Your task to perform on an android device: toggle improve location accuracy Image 0: 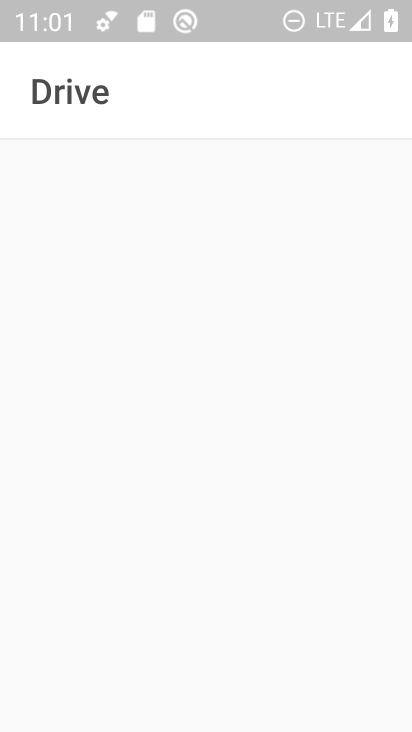
Step 0: press home button
Your task to perform on an android device: toggle improve location accuracy Image 1: 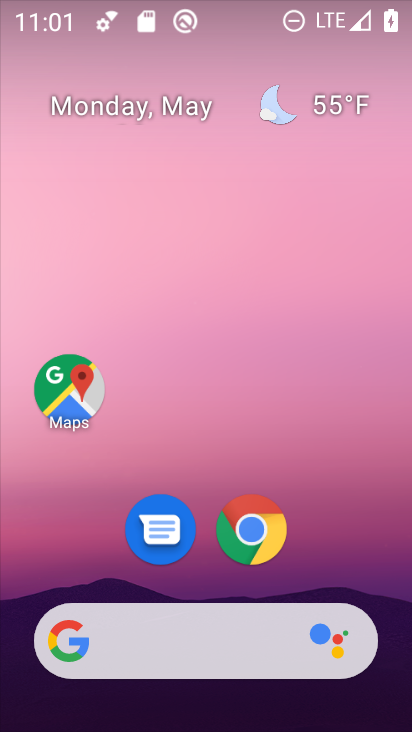
Step 1: drag from (231, 621) to (277, 30)
Your task to perform on an android device: toggle improve location accuracy Image 2: 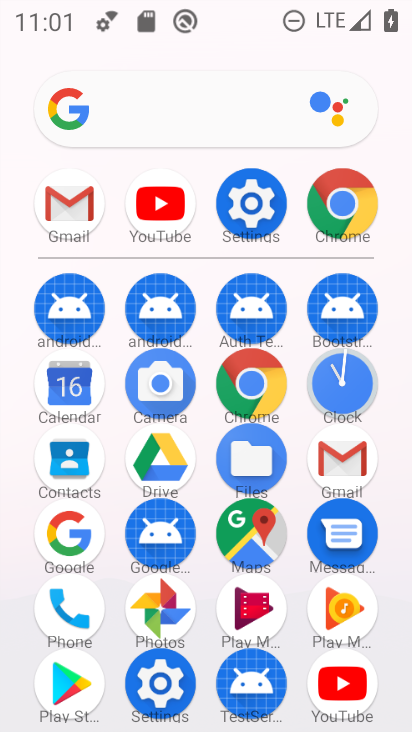
Step 2: click (256, 197)
Your task to perform on an android device: toggle improve location accuracy Image 3: 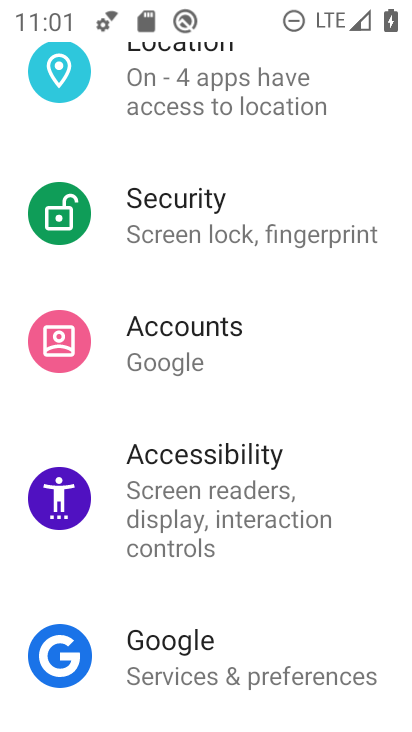
Step 3: click (140, 73)
Your task to perform on an android device: toggle improve location accuracy Image 4: 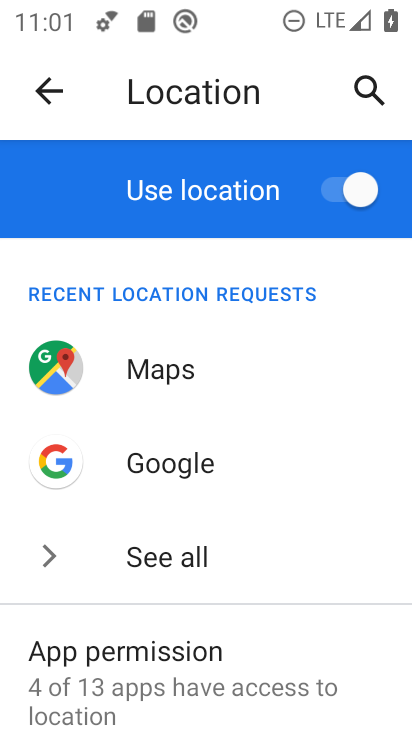
Step 4: drag from (154, 662) to (10, 197)
Your task to perform on an android device: toggle improve location accuracy Image 5: 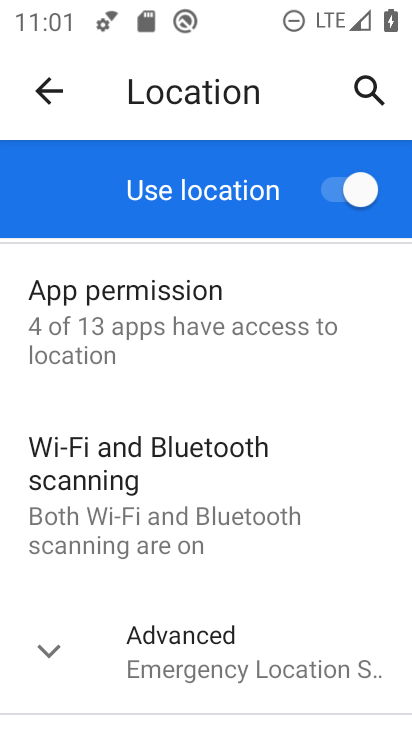
Step 5: click (131, 642)
Your task to perform on an android device: toggle improve location accuracy Image 6: 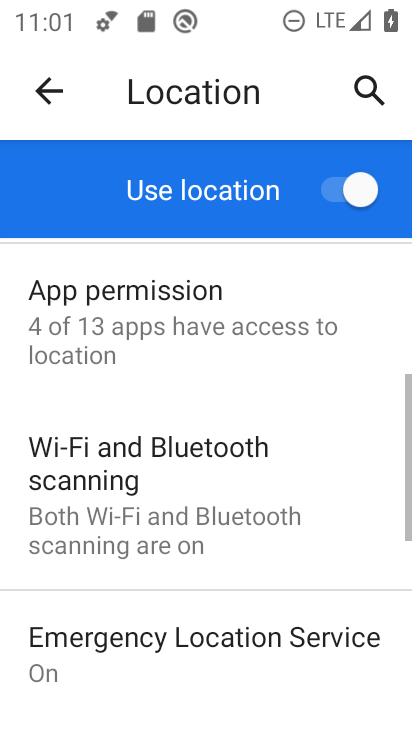
Step 6: drag from (131, 642) to (60, 14)
Your task to perform on an android device: toggle improve location accuracy Image 7: 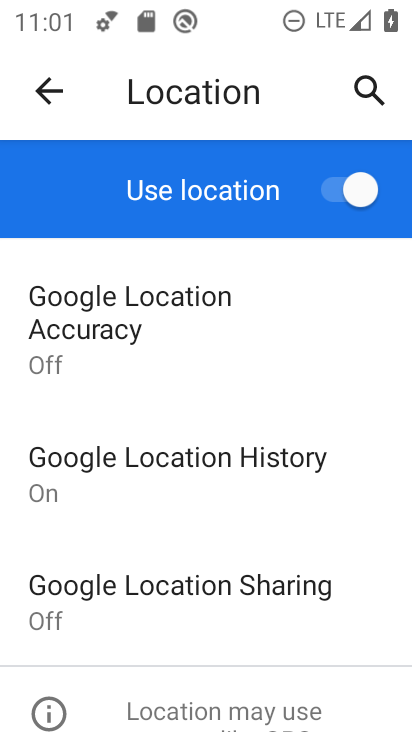
Step 7: click (155, 341)
Your task to perform on an android device: toggle improve location accuracy Image 8: 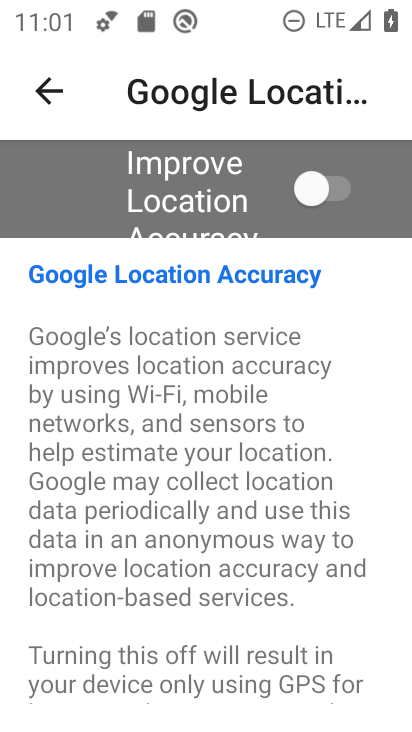
Step 8: click (325, 178)
Your task to perform on an android device: toggle improve location accuracy Image 9: 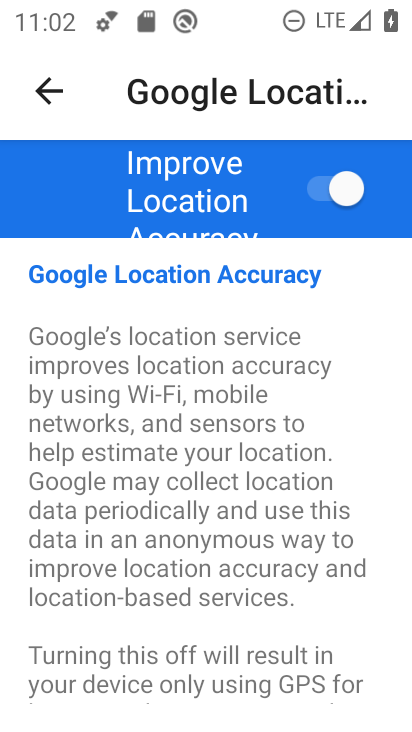
Step 9: task complete